Your task to perform on an android device: empty trash in the gmail app Image 0: 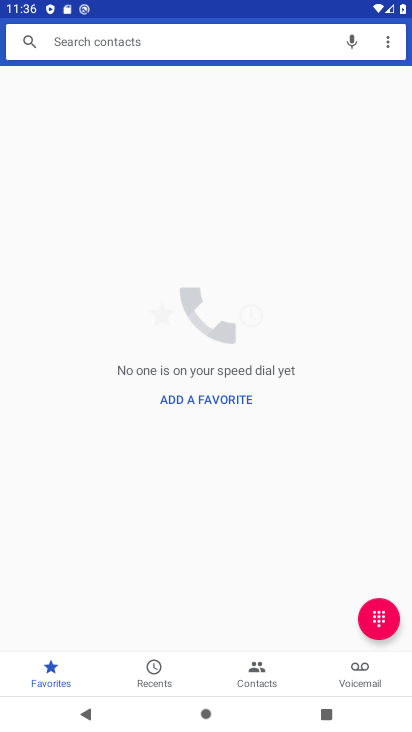
Step 0: press back button
Your task to perform on an android device: empty trash in the gmail app Image 1: 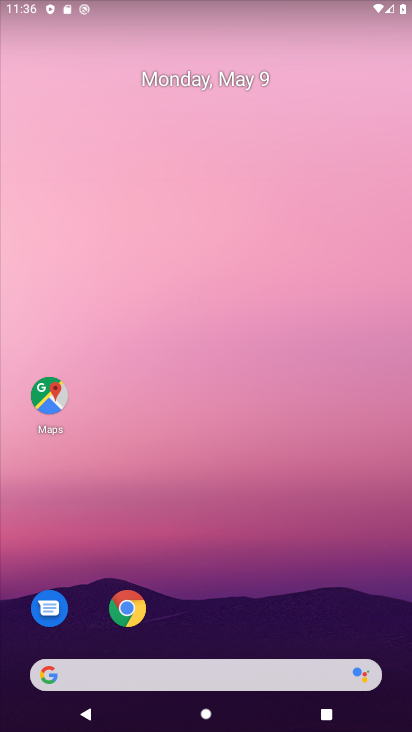
Step 1: drag from (251, 621) to (262, 20)
Your task to perform on an android device: empty trash in the gmail app Image 2: 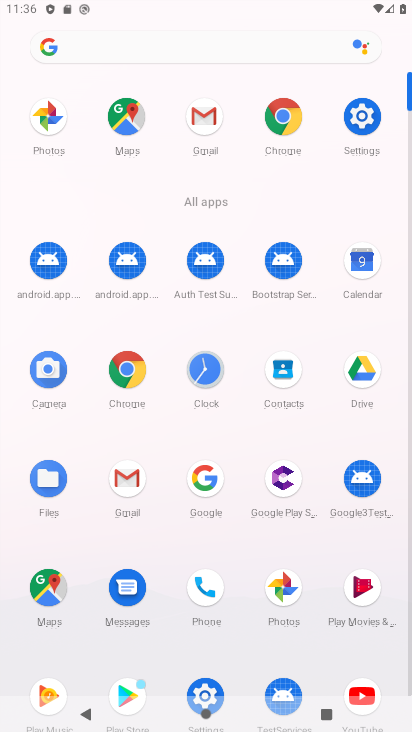
Step 2: click (200, 114)
Your task to perform on an android device: empty trash in the gmail app Image 3: 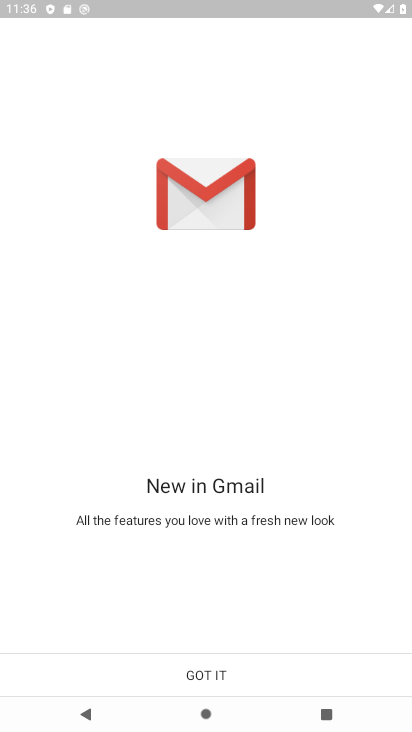
Step 3: click (206, 657)
Your task to perform on an android device: empty trash in the gmail app Image 4: 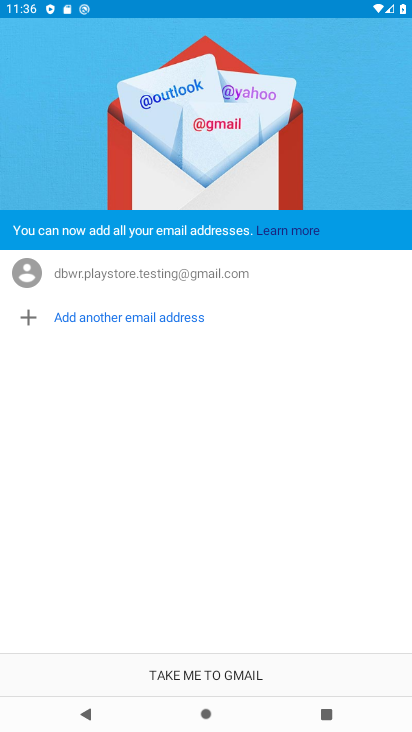
Step 4: click (212, 666)
Your task to perform on an android device: empty trash in the gmail app Image 5: 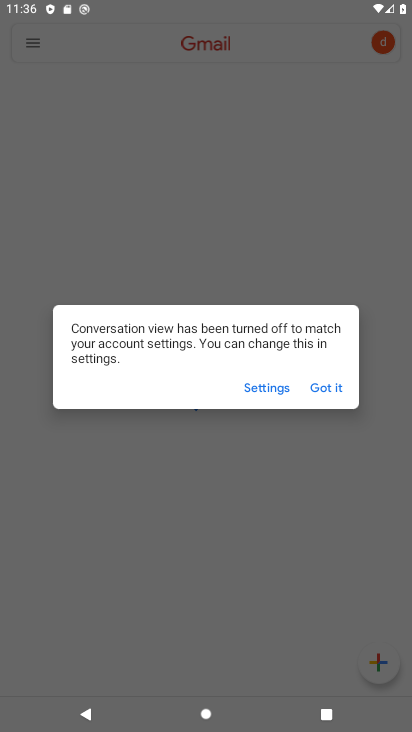
Step 5: click (321, 380)
Your task to perform on an android device: empty trash in the gmail app Image 6: 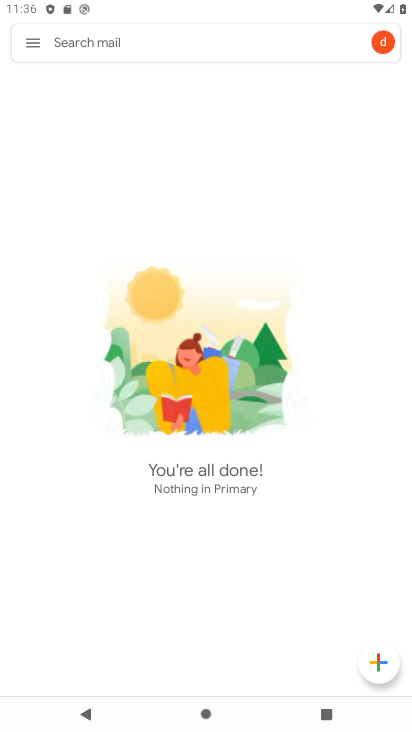
Step 6: click (32, 48)
Your task to perform on an android device: empty trash in the gmail app Image 7: 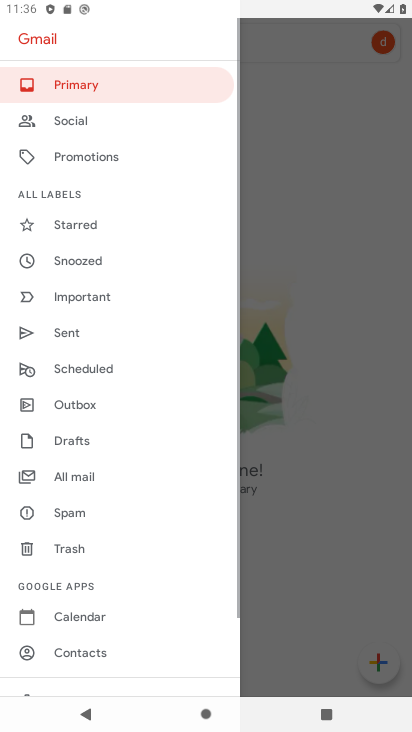
Step 7: drag from (110, 536) to (140, 239)
Your task to perform on an android device: empty trash in the gmail app Image 8: 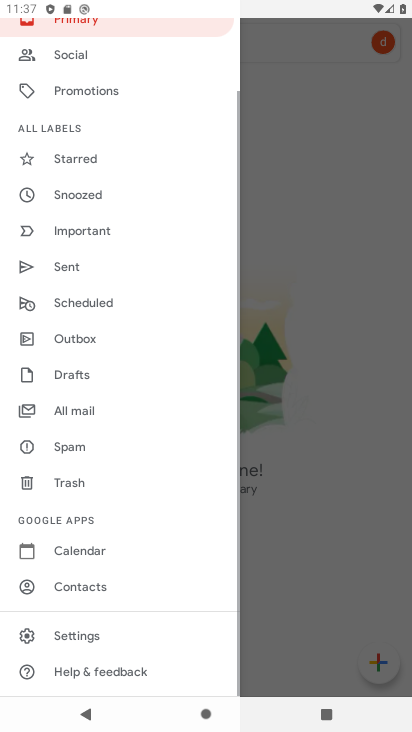
Step 8: click (77, 472)
Your task to perform on an android device: empty trash in the gmail app Image 9: 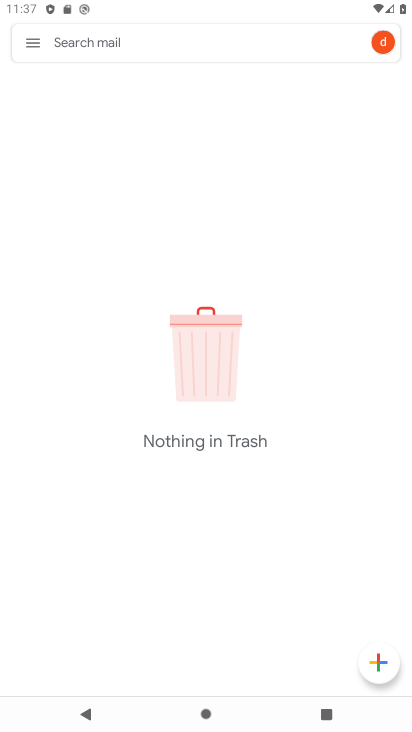
Step 9: task complete